Your task to perform on an android device: Add "bose soundlink" to the cart on target.com Image 0: 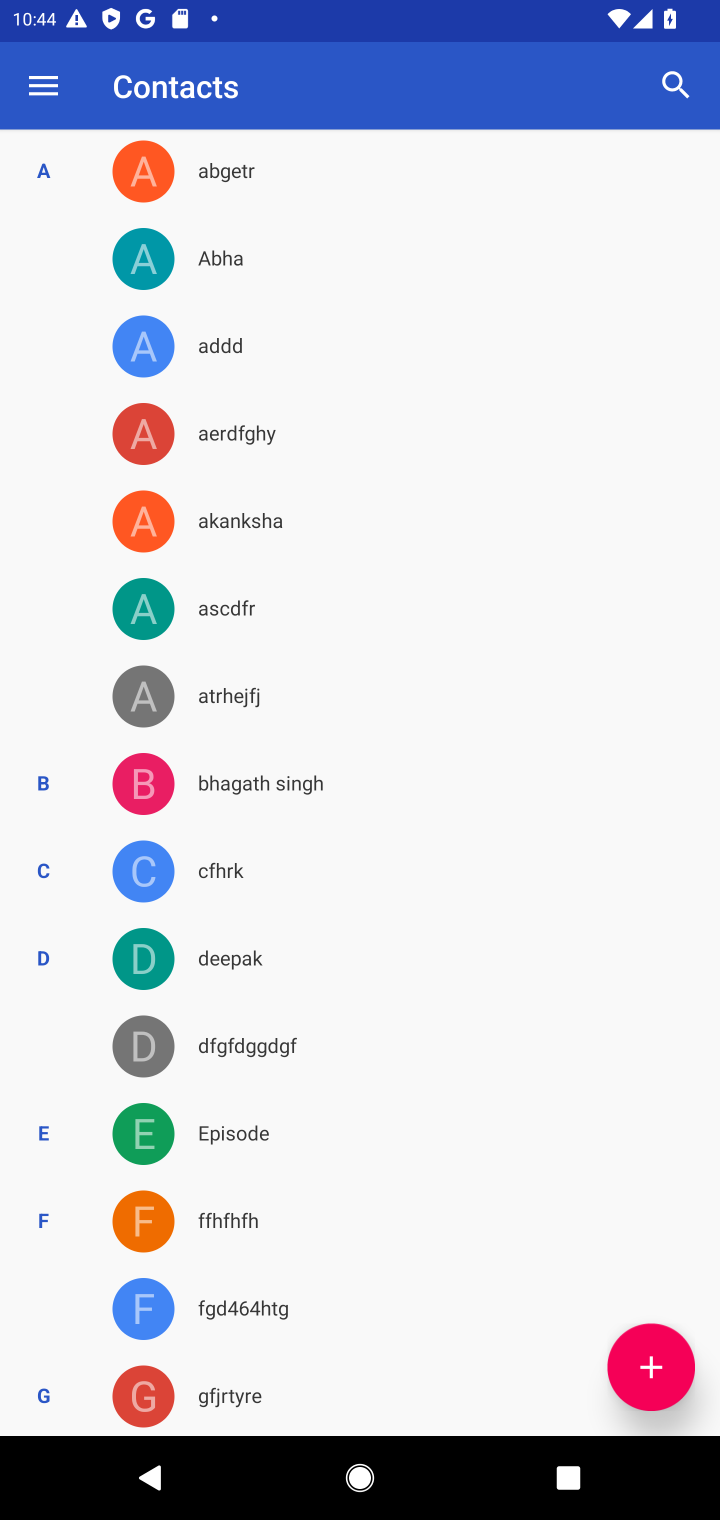
Step 0: press home button
Your task to perform on an android device: Add "bose soundlink" to the cart on target.com Image 1: 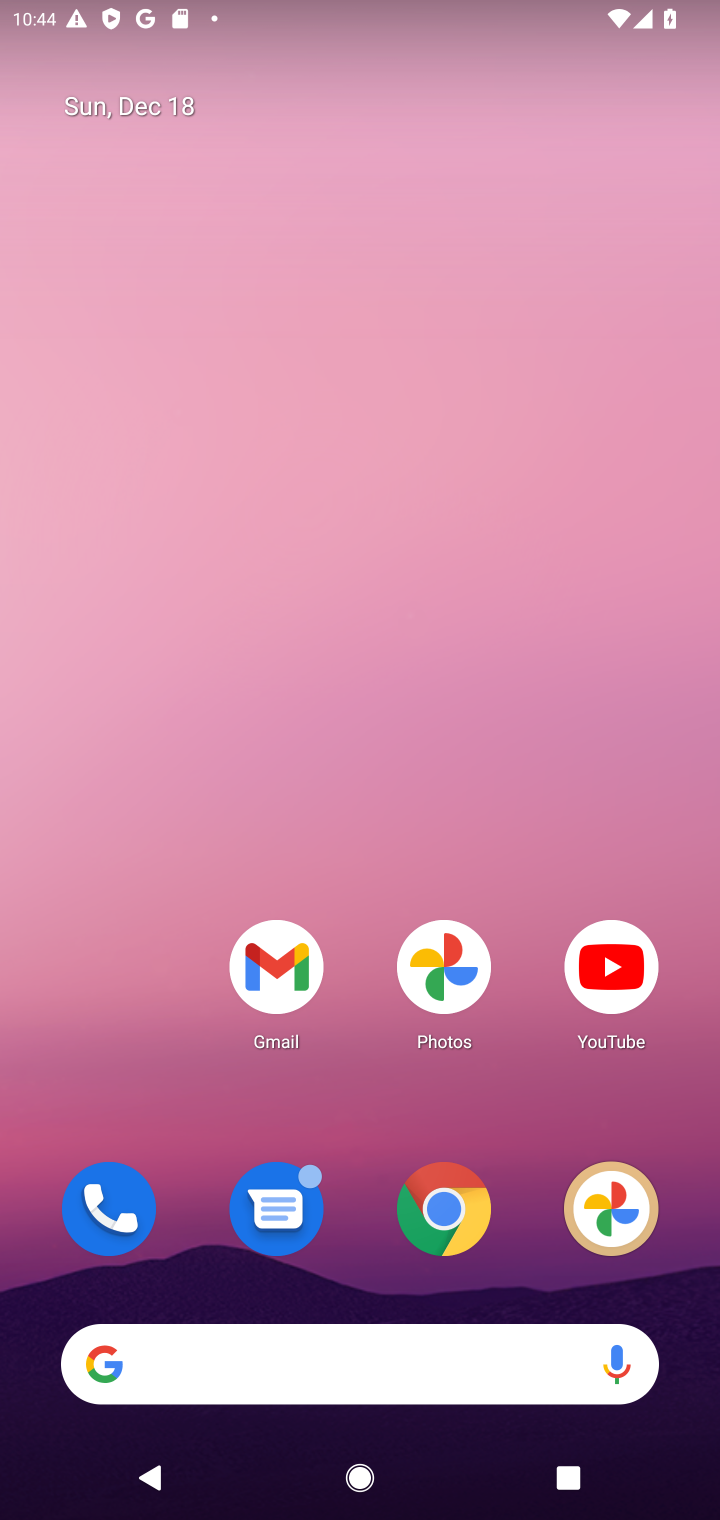
Step 1: click (432, 1220)
Your task to perform on an android device: Add "bose soundlink" to the cart on target.com Image 2: 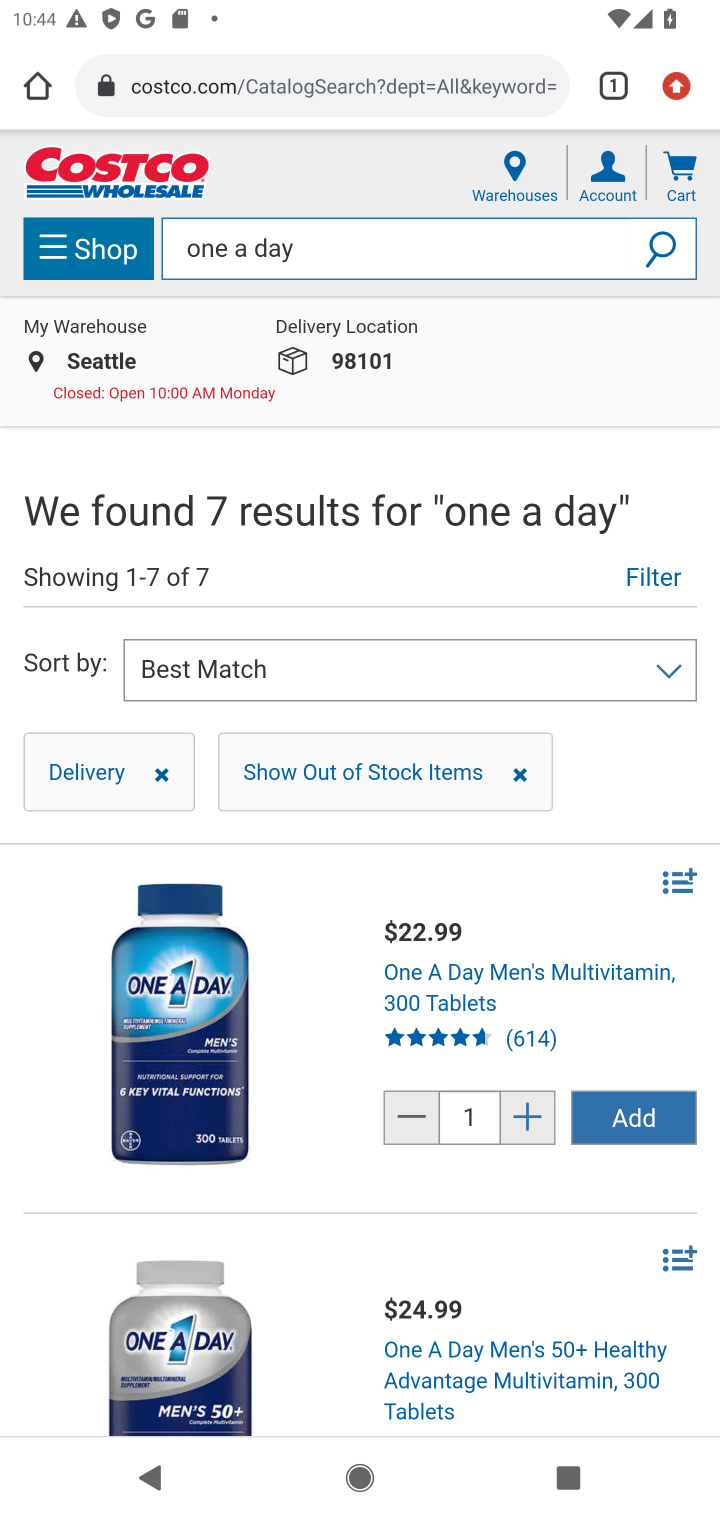
Step 2: click (284, 81)
Your task to perform on an android device: Add "bose soundlink" to the cart on target.com Image 3: 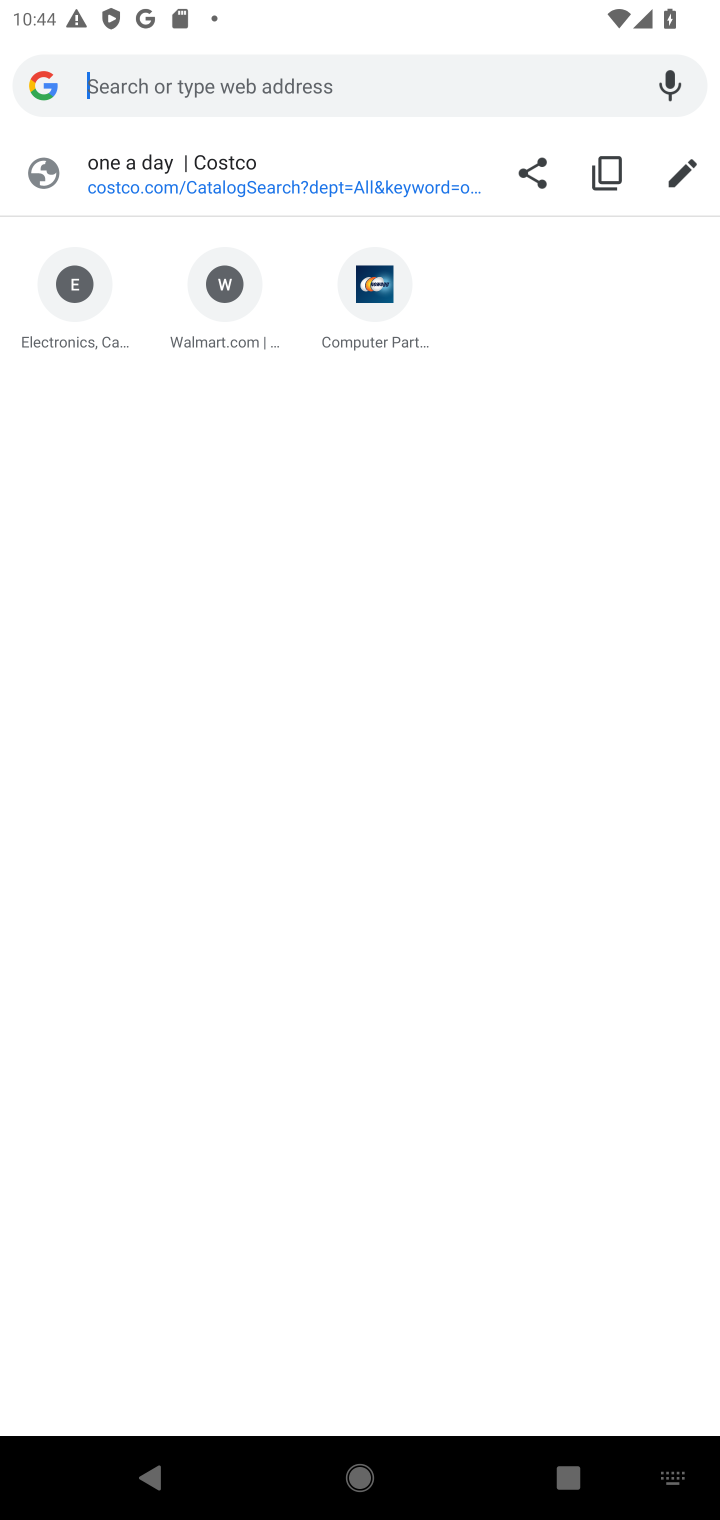
Step 3: type "TARGET"
Your task to perform on an android device: Add "bose soundlink" to the cart on target.com Image 4: 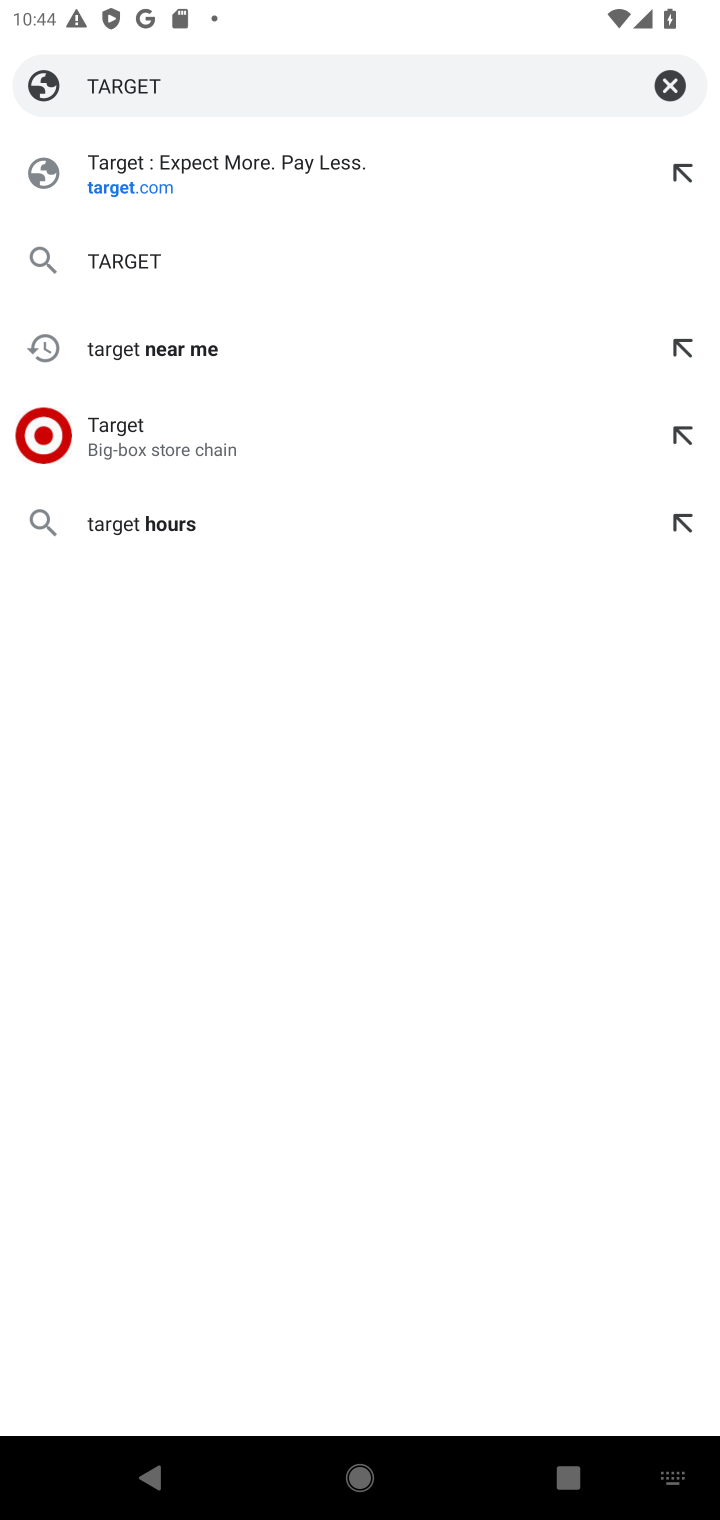
Step 4: click (187, 183)
Your task to perform on an android device: Add "bose soundlink" to the cart on target.com Image 5: 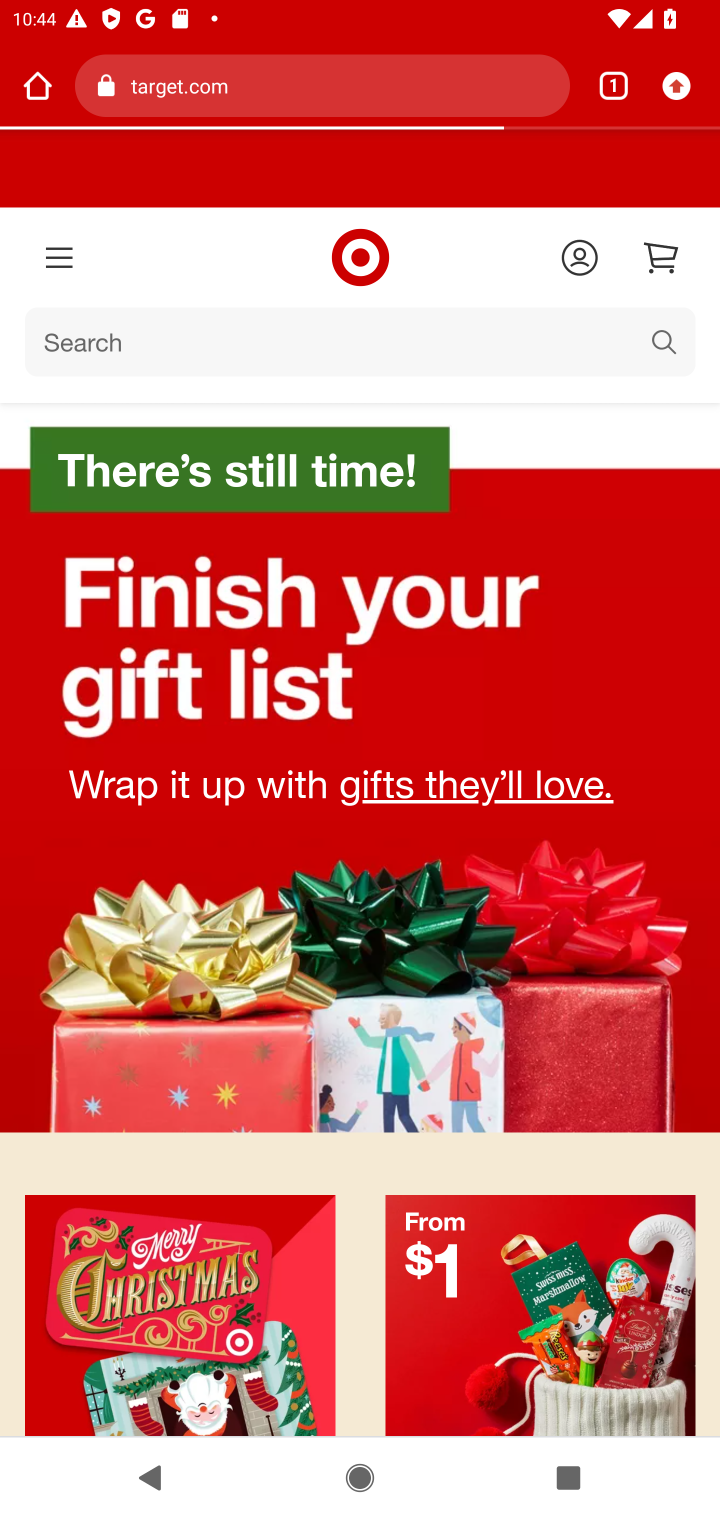
Step 5: click (454, 347)
Your task to perform on an android device: Add "bose soundlink" to the cart on target.com Image 6: 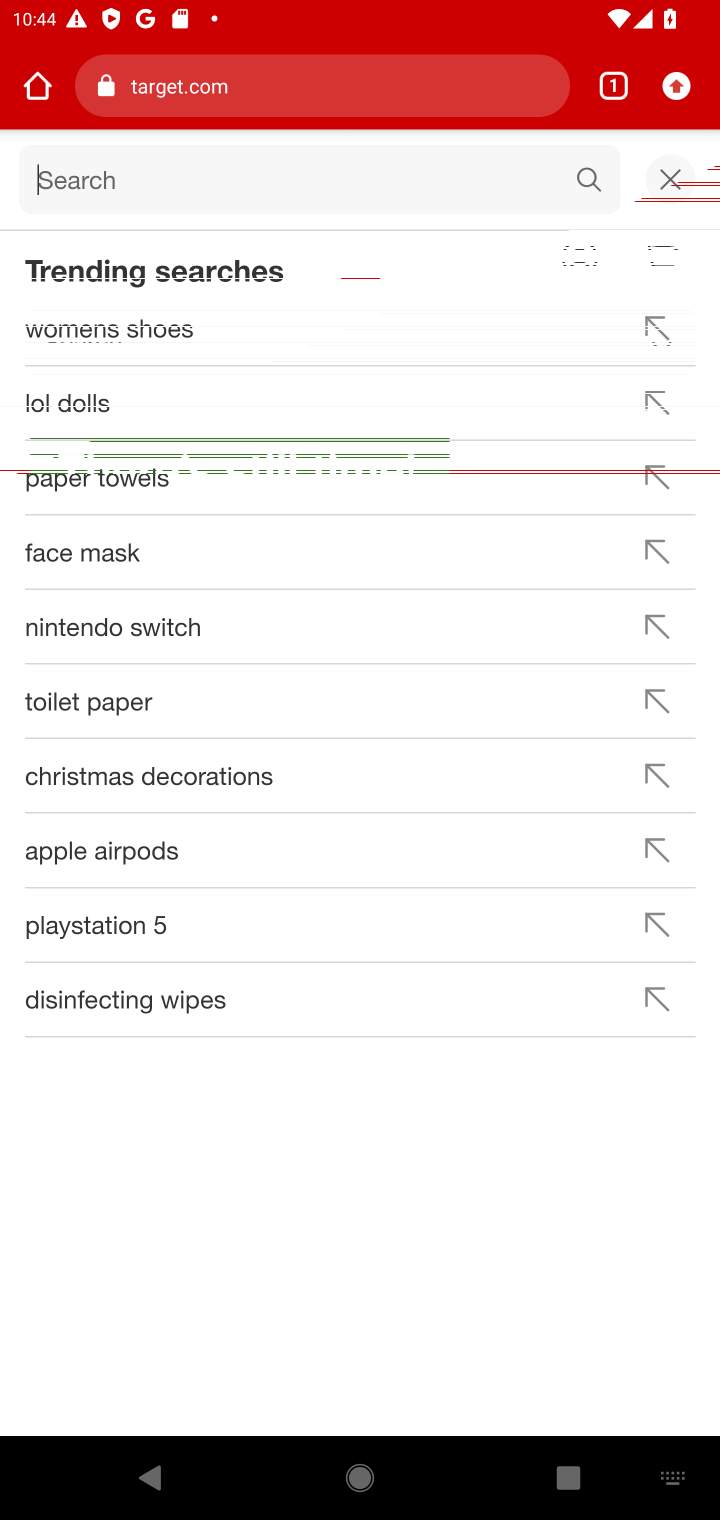
Step 6: type "BOSE SOUNDLINK"
Your task to perform on an android device: Add "bose soundlink" to the cart on target.com Image 7: 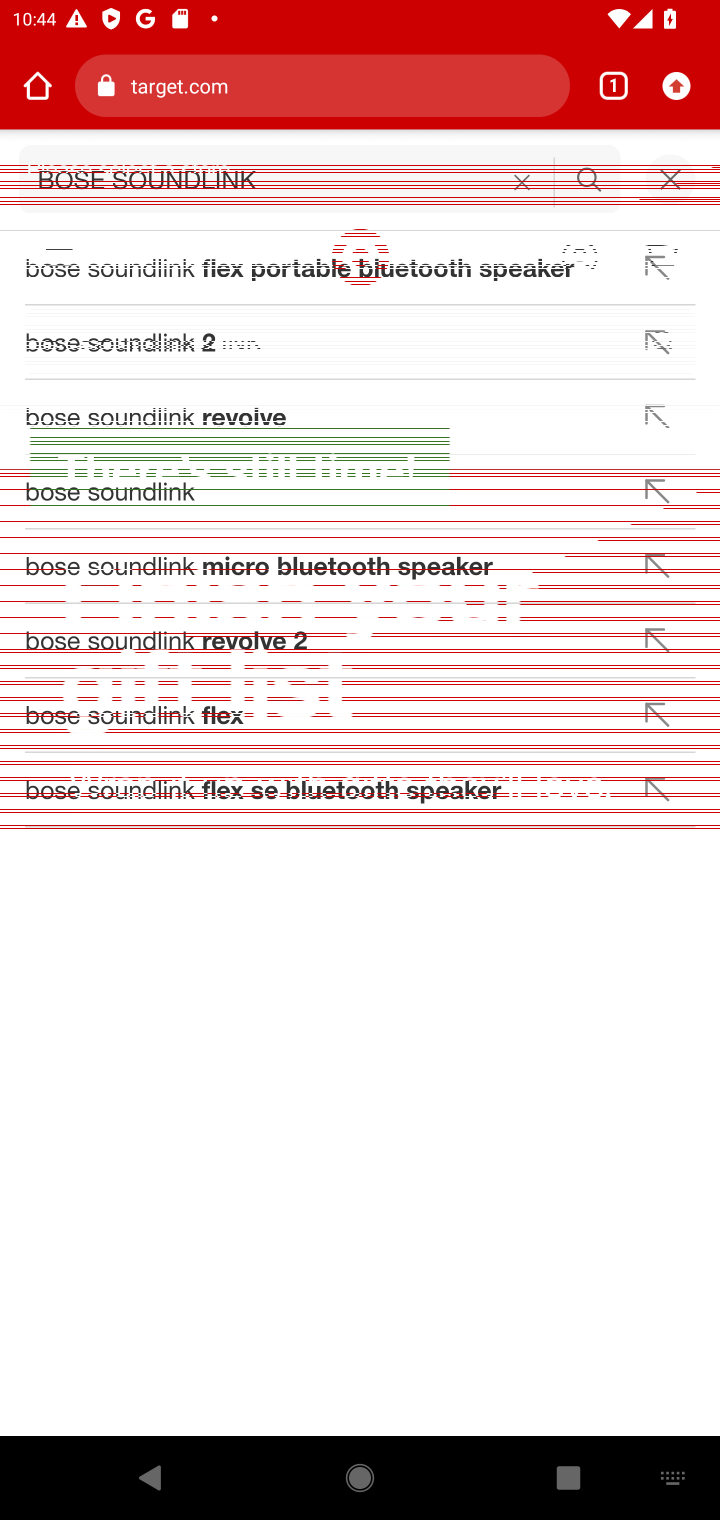
Step 7: click (163, 267)
Your task to perform on an android device: Add "bose soundlink" to the cart on target.com Image 8: 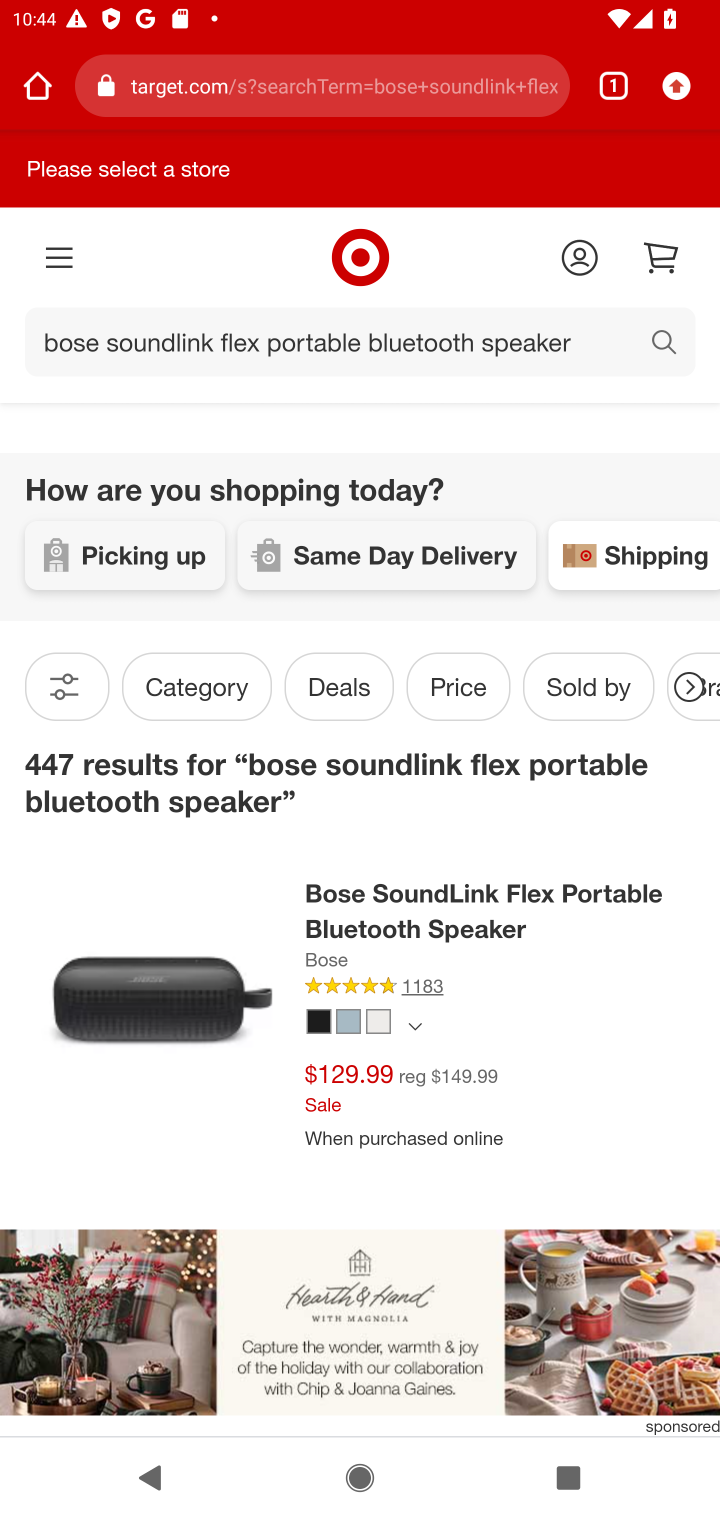
Step 8: click (530, 908)
Your task to perform on an android device: Add "bose soundlink" to the cart on target.com Image 9: 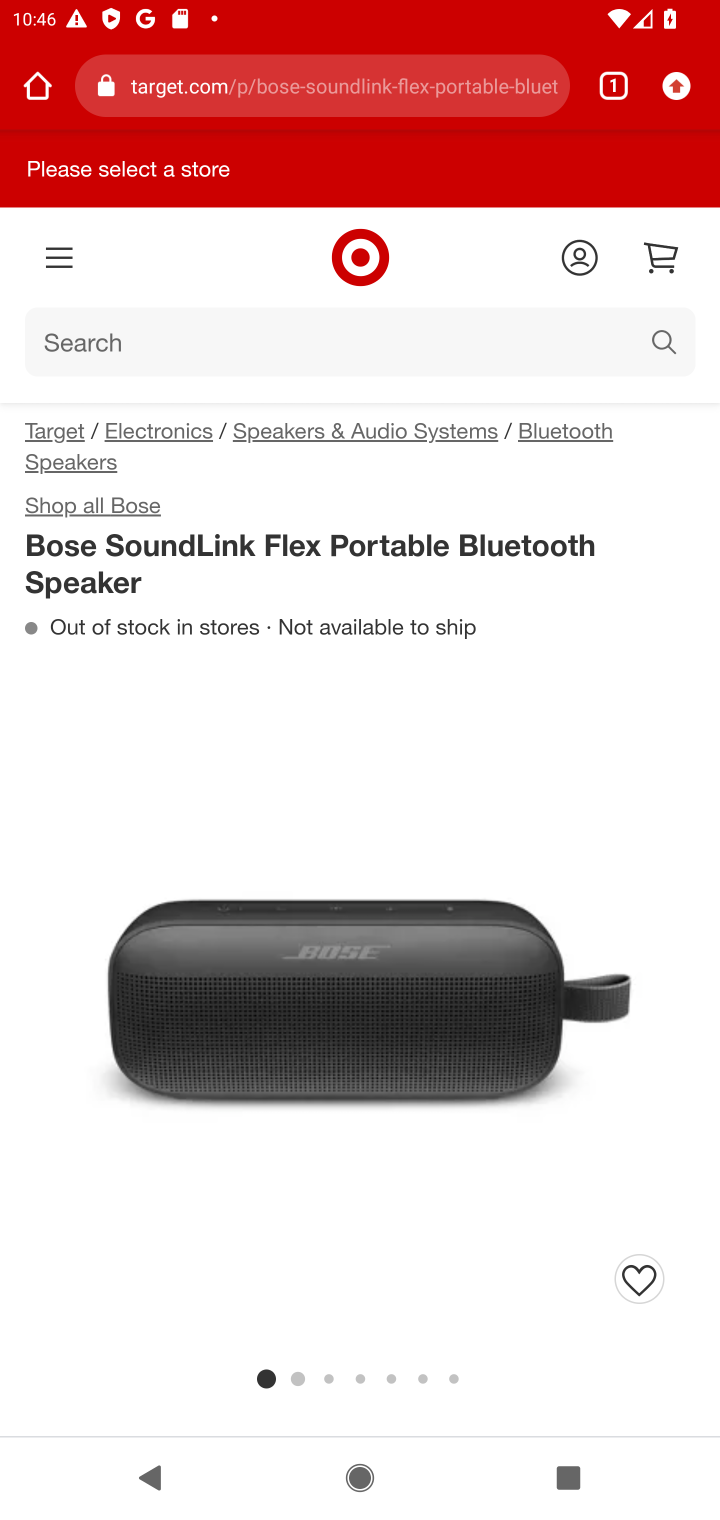
Step 9: drag from (430, 1241) to (447, 557)
Your task to perform on an android device: Add "bose soundlink" to the cart on target.com Image 10: 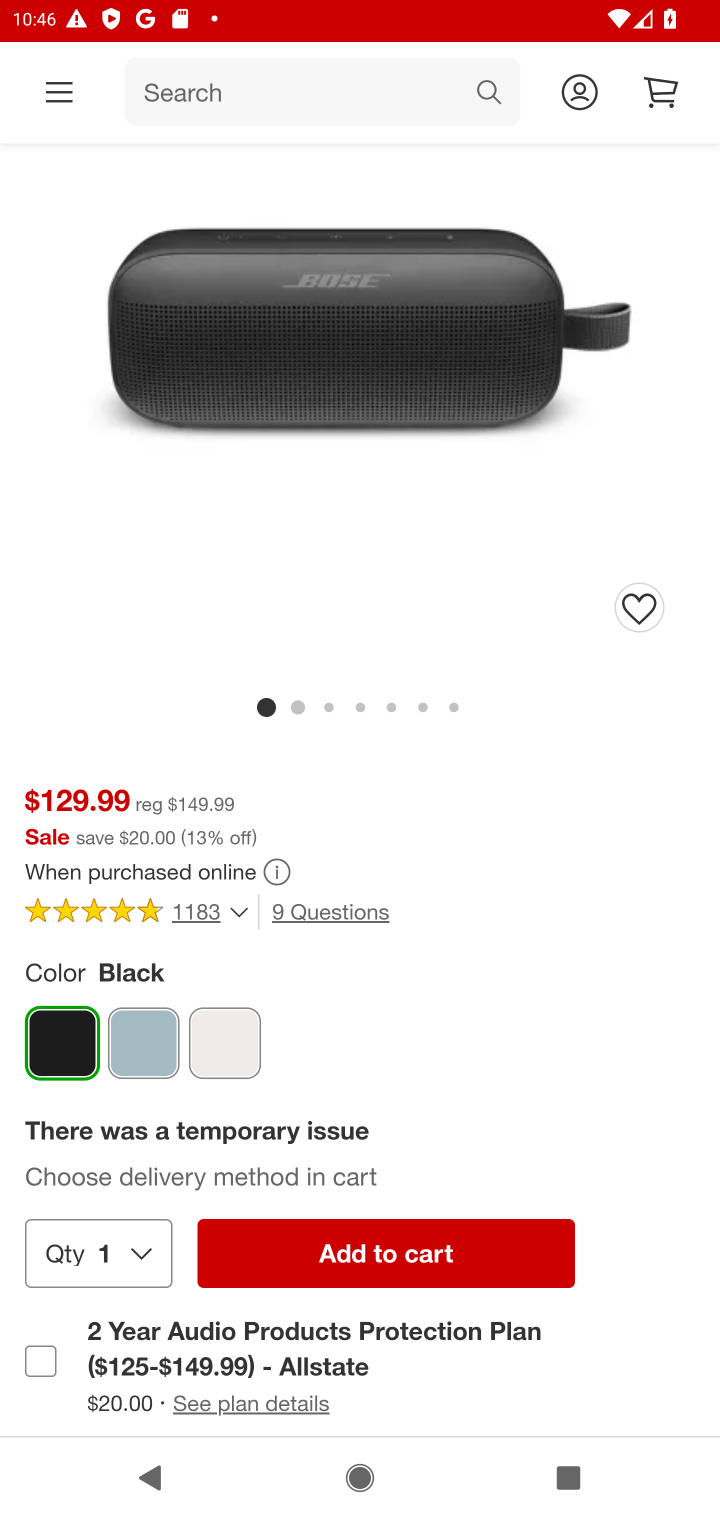
Step 10: click (384, 1259)
Your task to perform on an android device: Add "bose soundlink" to the cart on target.com Image 11: 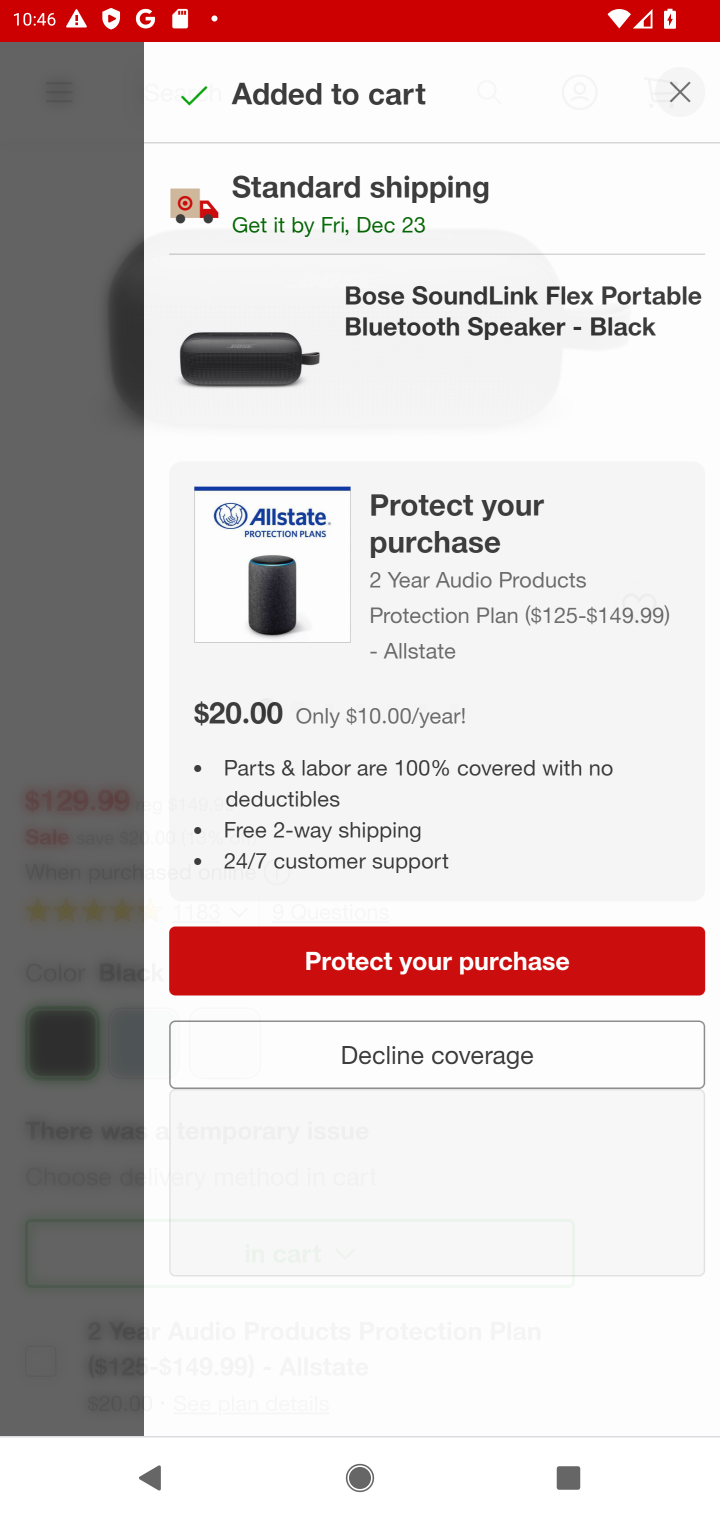
Step 11: task complete